Your task to perform on an android device: change the clock style Image 0: 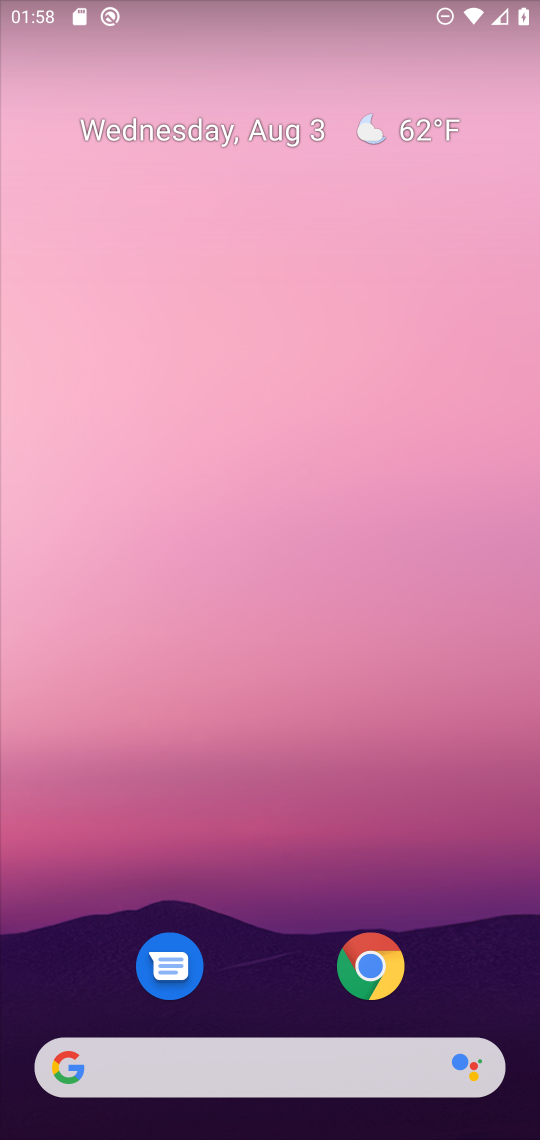
Step 0: drag from (272, 981) to (245, 452)
Your task to perform on an android device: change the clock style Image 1: 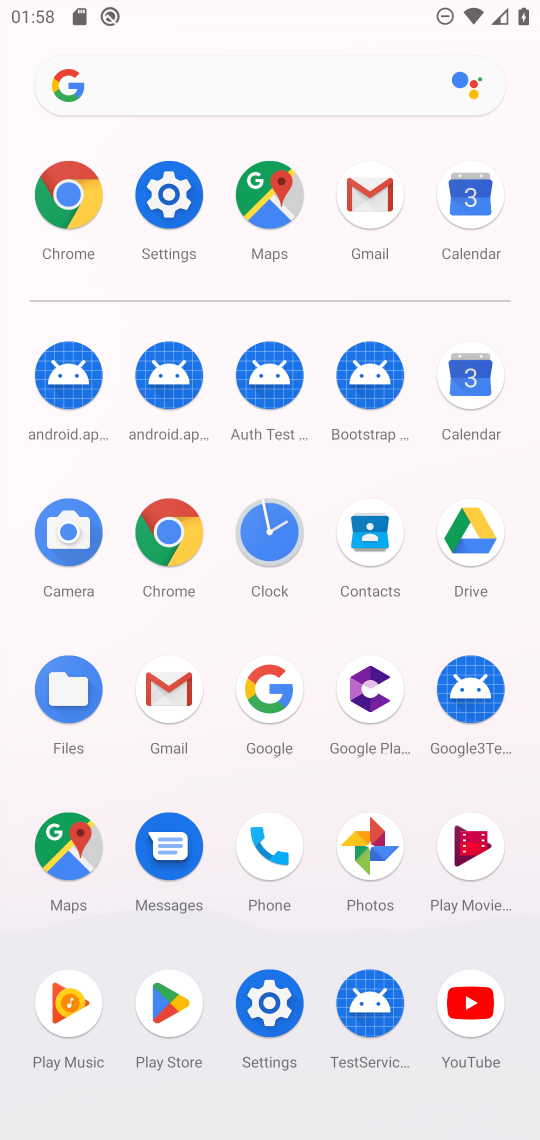
Step 1: click (272, 548)
Your task to perform on an android device: change the clock style Image 2: 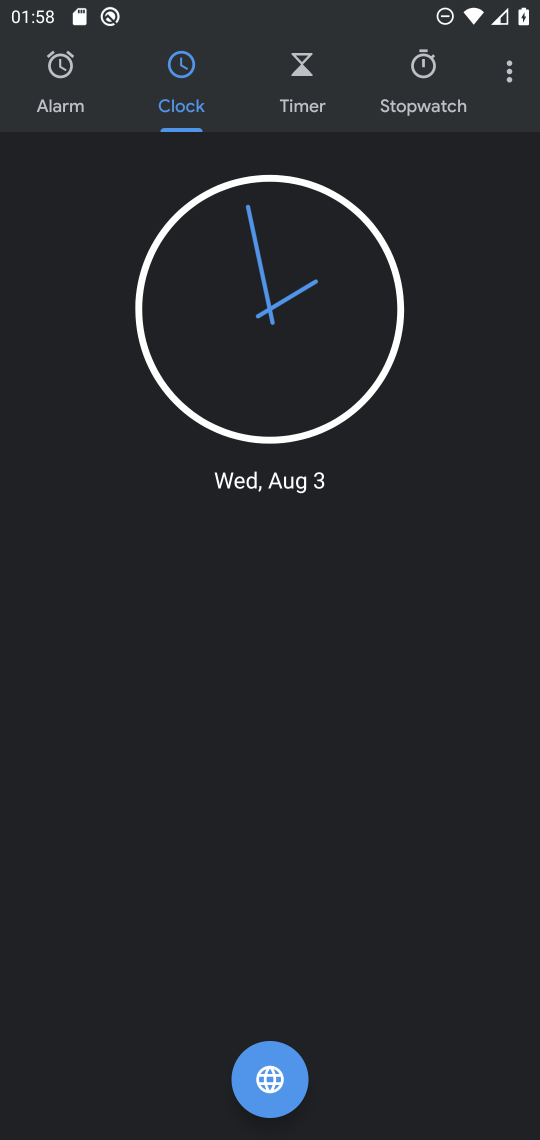
Step 2: click (501, 84)
Your task to perform on an android device: change the clock style Image 3: 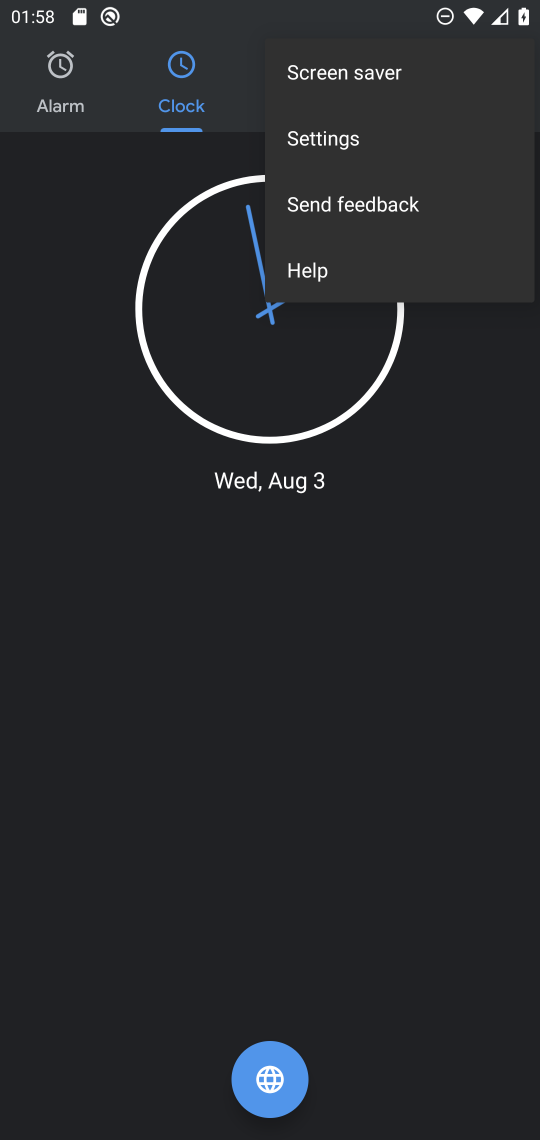
Step 3: click (384, 138)
Your task to perform on an android device: change the clock style Image 4: 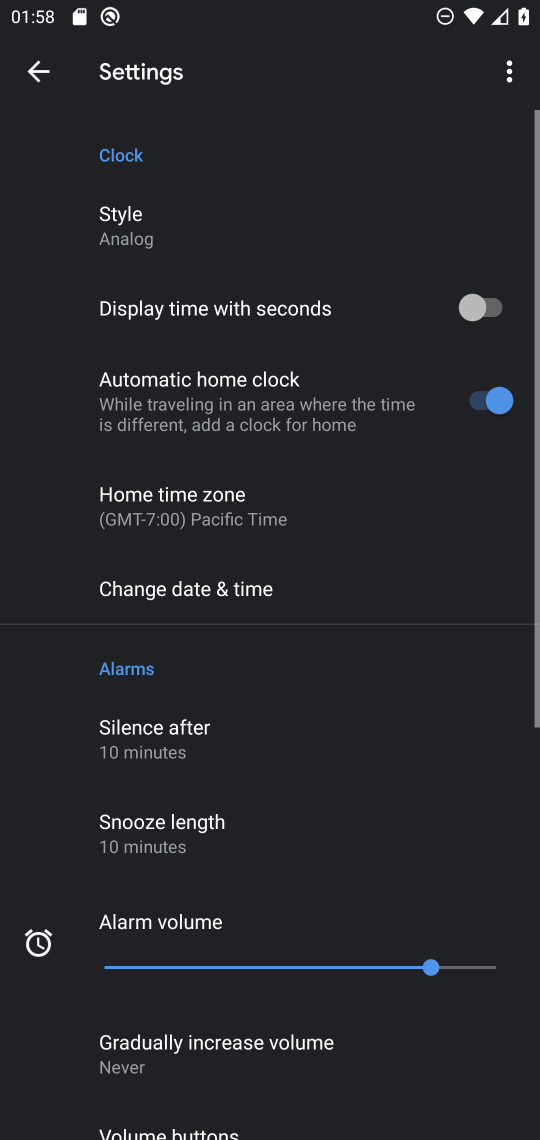
Step 4: click (193, 215)
Your task to perform on an android device: change the clock style Image 5: 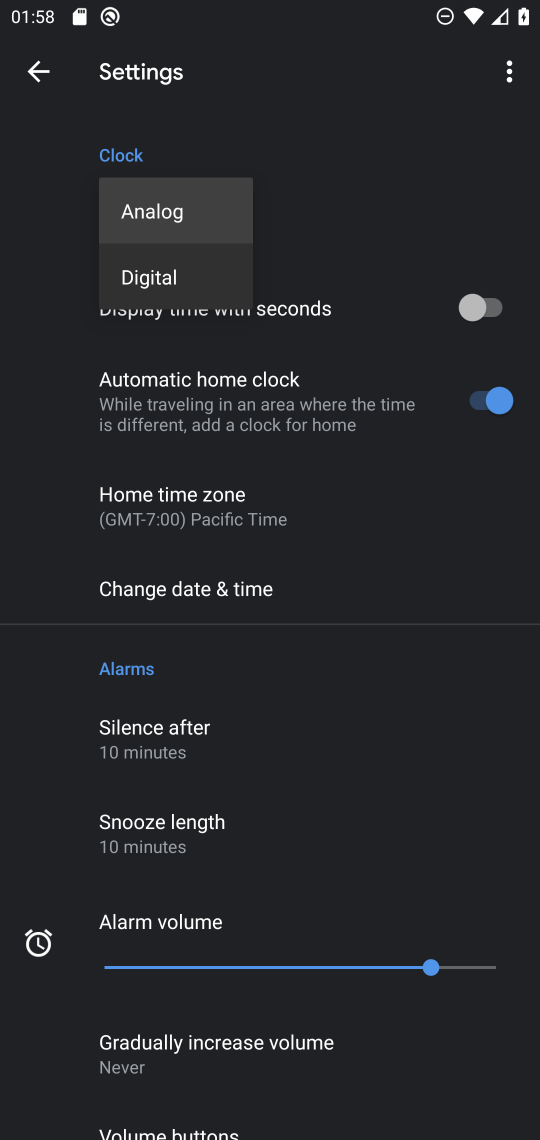
Step 5: click (196, 295)
Your task to perform on an android device: change the clock style Image 6: 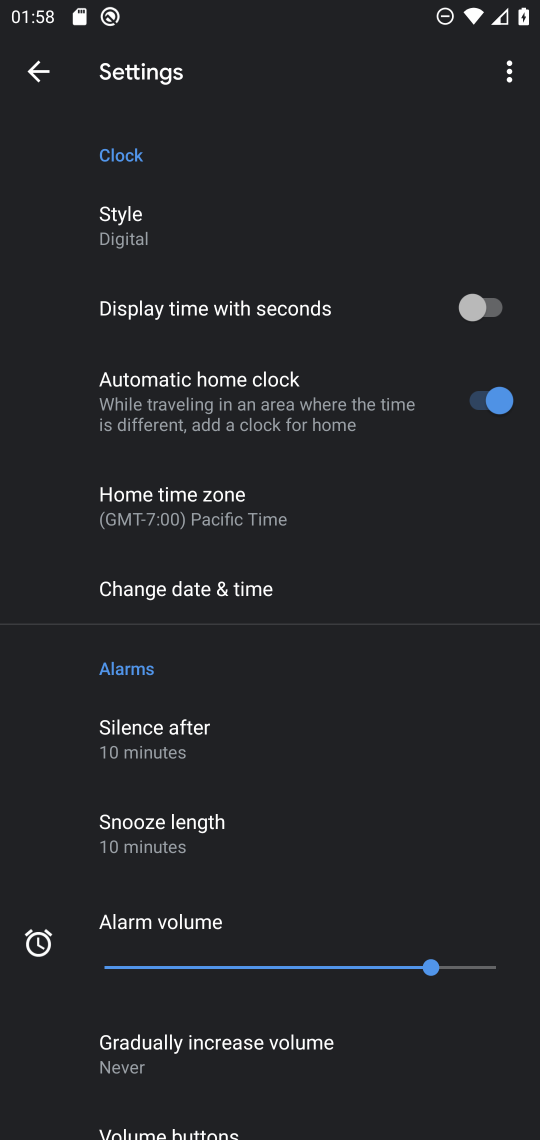
Step 6: task complete